Your task to perform on an android device: Open calendar and show me the first week of next month Image 0: 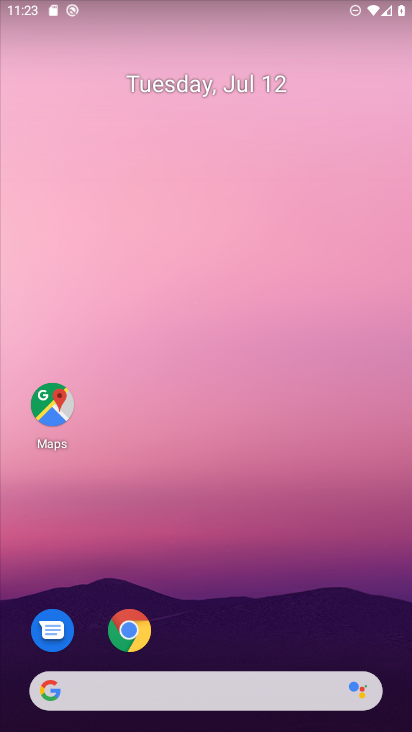
Step 0: drag from (350, 515) to (264, 110)
Your task to perform on an android device: Open calendar and show me the first week of next month Image 1: 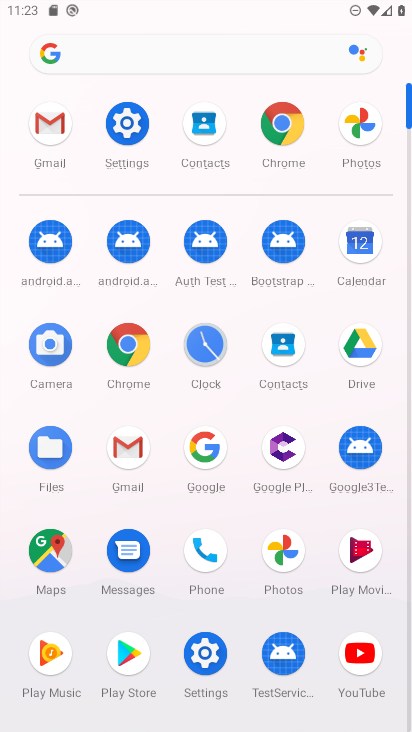
Step 1: click (373, 244)
Your task to perform on an android device: Open calendar and show me the first week of next month Image 2: 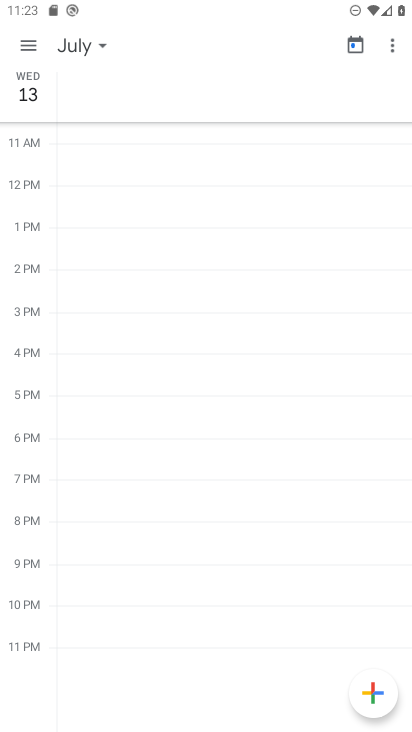
Step 2: click (94, 48)
Your task to perform on an android device: Open calendar and show me the first week of next month Image 3: 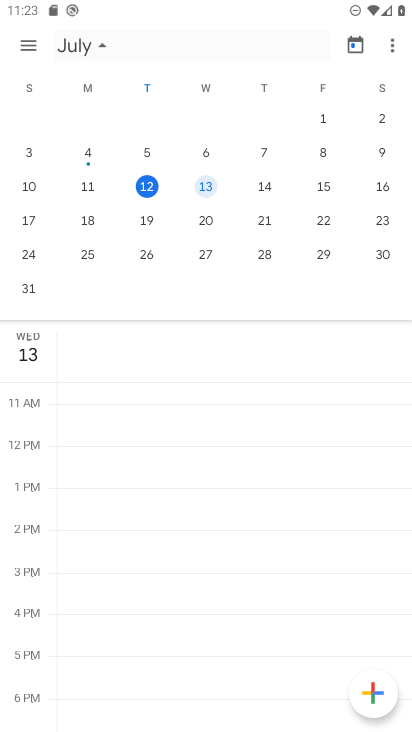
Step 3: click (81, 41)
Your task to perform on an android device: Open calendar and show me the first week of next month Image 4: 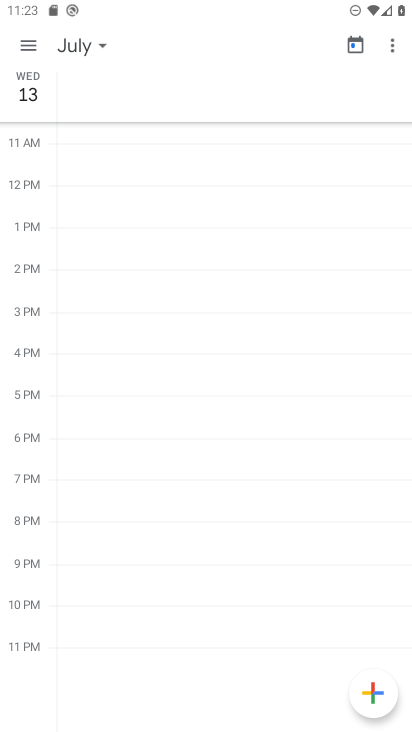
Step 4: click (81, 41)
Your task to perform on an android device: Open calendar and show me the first week of next month Image 5: 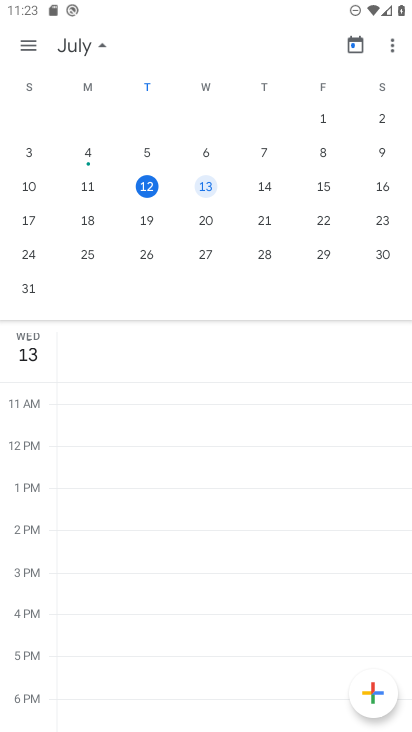
Step 5: drag from (381, 229) to (55, 219)
Your task to perform on an android device: Open calendar and show me the first week of next month Image 6: 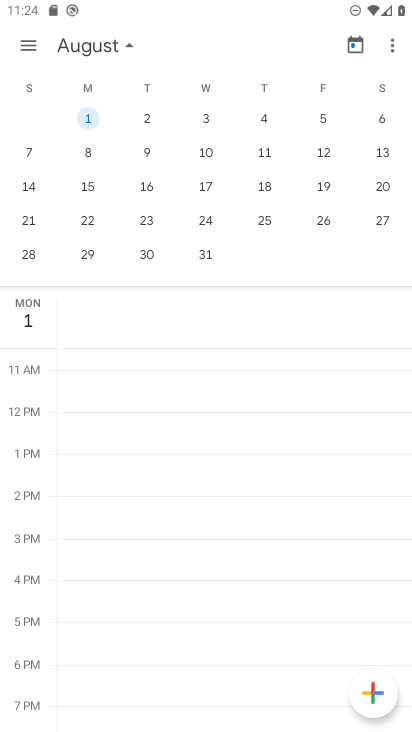
Step 6: click (29, 46)
Your task to perform on an android device: Open calendar and show me the first week of next month Image 7: 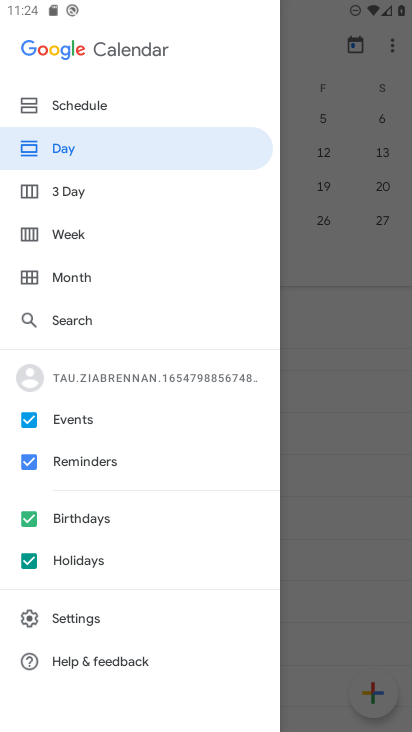
Step 7: click (78, 224)
Your task to perform on an android device: Open calendar and show me the first week of next month Image 8: 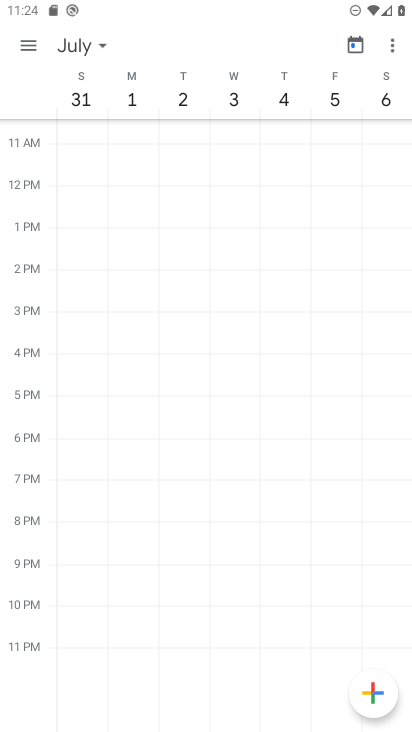
Step 8: task complete